Your task to perform on an android device: What's the weather going to be this weekend? Image 0: 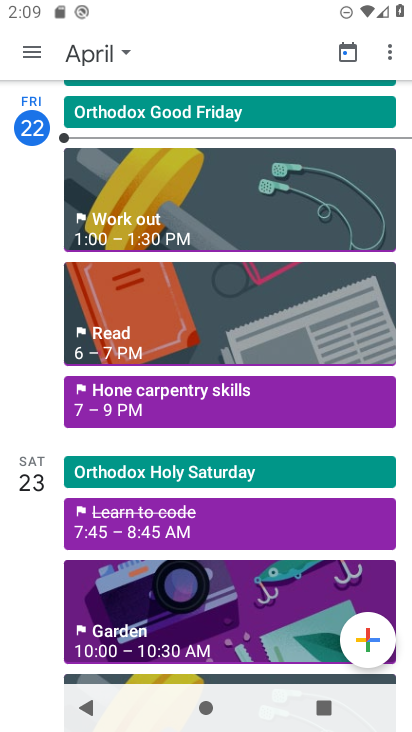
Step 0: press home button
Your task to perform on an android device: What's the weather going to be this weekend? Image 1: 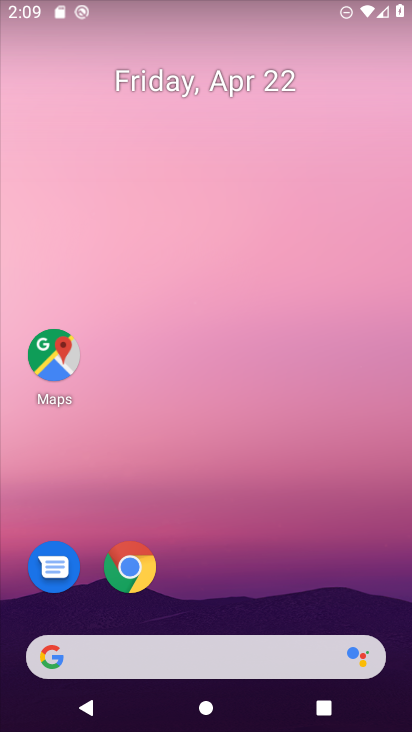
Step 1: drag from (226, 600) to (267, 80)
Your task to perform on an android device: What's the weather going to be this weekend? Image 2: 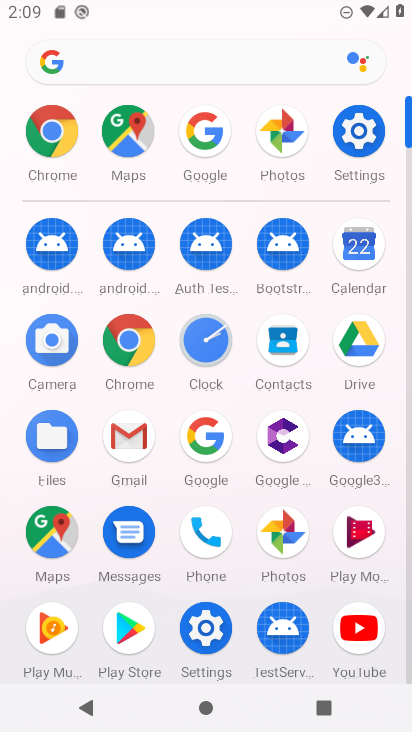
Step 2: click (212, 433)
Your task to perform on an android device: What's the weather going to be this weekend? Image 3: 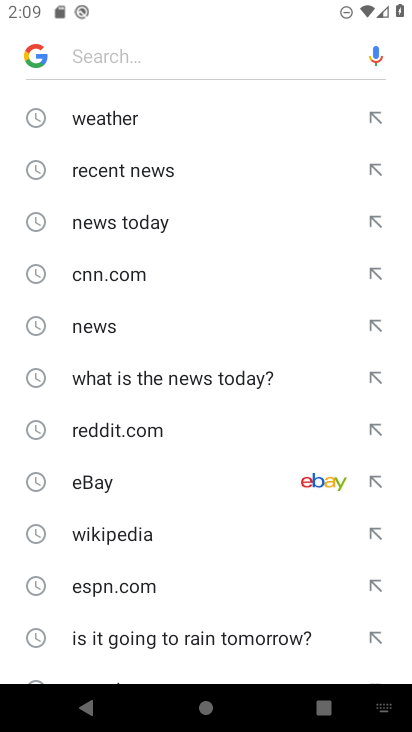
Step 3: click (86, 119)
Your task to perform on an android device: What's the weather going to be this weekend? Image 4: 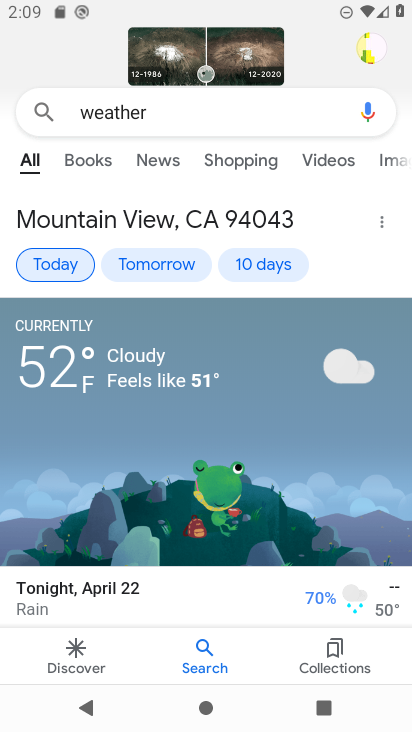
Step 4: click (282, 259)
Your task to perform on an android device: What's the weather going to be this weekend? Image 5: 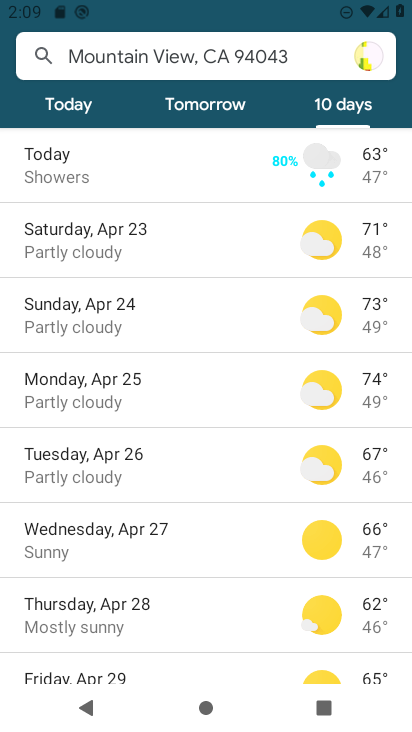
Step 5: click (161, 241)
Your task to perform on an android device: What's the weather going to be this weekend? Image 6: 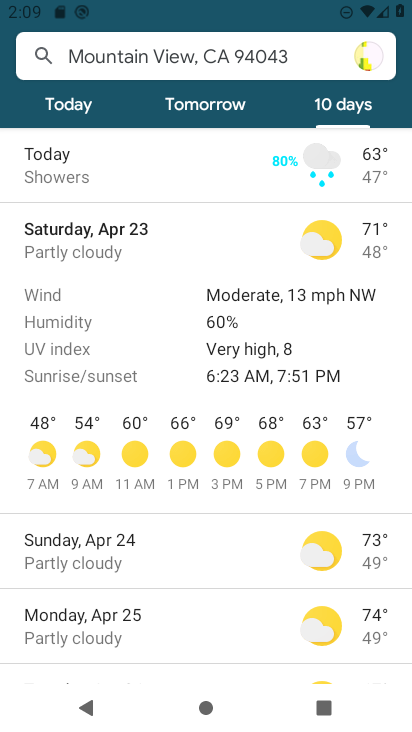
Step 6: task complete